Your task to perform on an android device: toggle show notifications on the lock screen Image 0: 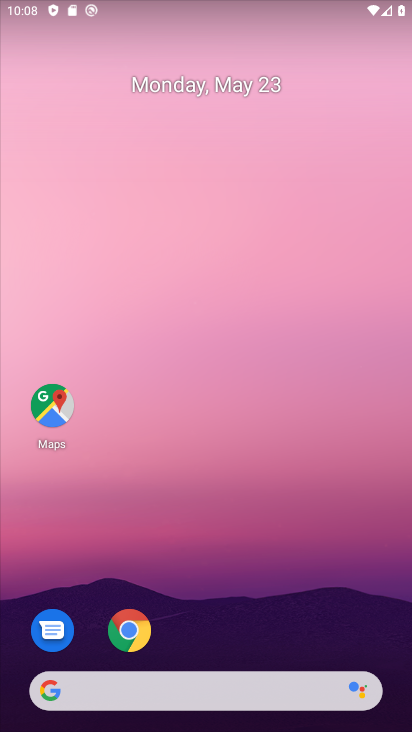
Step 0: drag from (307, 655) to (201, 16)
Your task to perform on an android device: toggle show notifications on the lock screen Image 1: 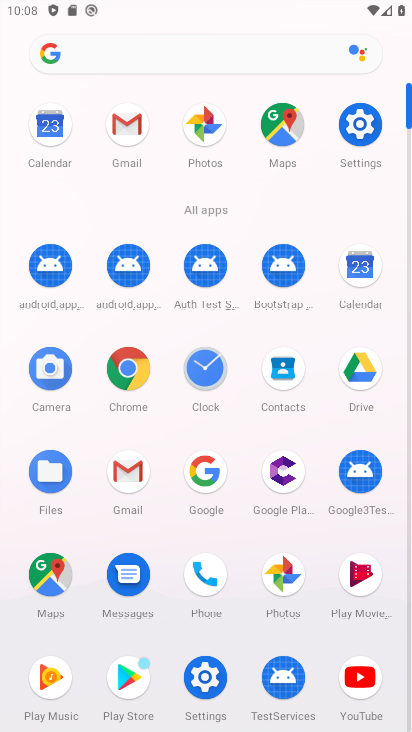
Step 1: click (351, 126)
Your task to perform on an android device: toggle show notifications on the lock screen Image 2: 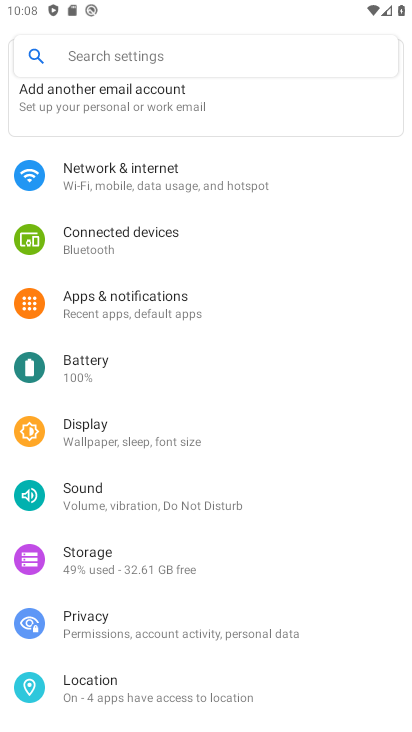
Step 2: click (90, 313)
Your task to perform on an android device: toggle show notifications on the lock screen Image 3: 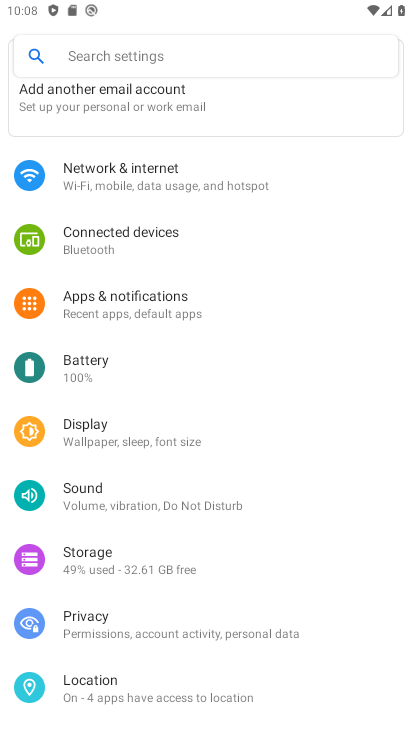
Step 3: click (114, 298)
Your task to perform on an android device: toggle show notifications on the lock screen Image 4: 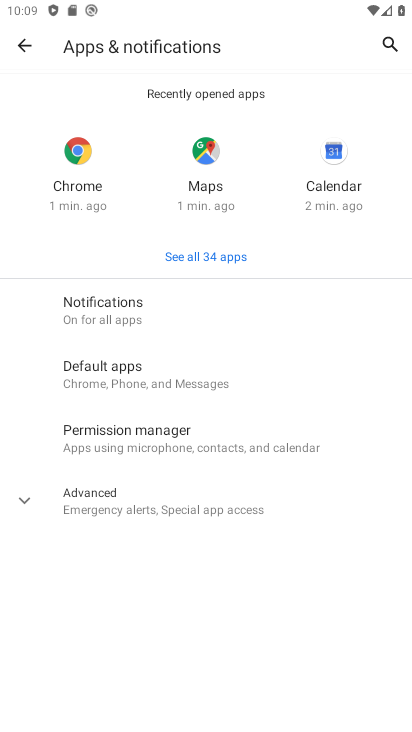
Step 4: click (93, 323)
Your task to perform on an android device: toggle show notifications on the lock screen Image 5: 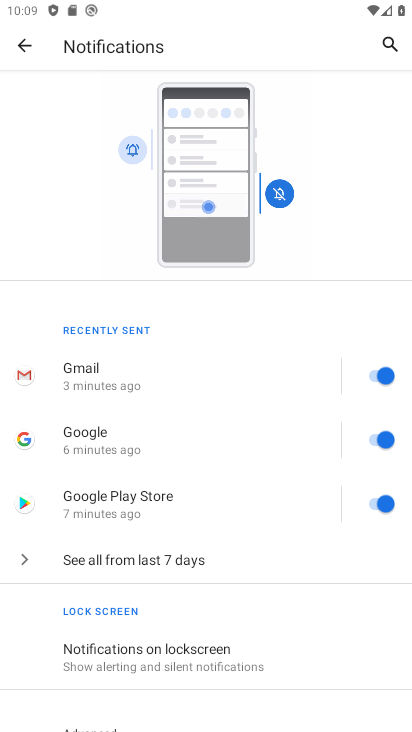
Step 5: click (140, 651)
Your task to perform on an android device: toggle show notifications on the lock screen Image 6: 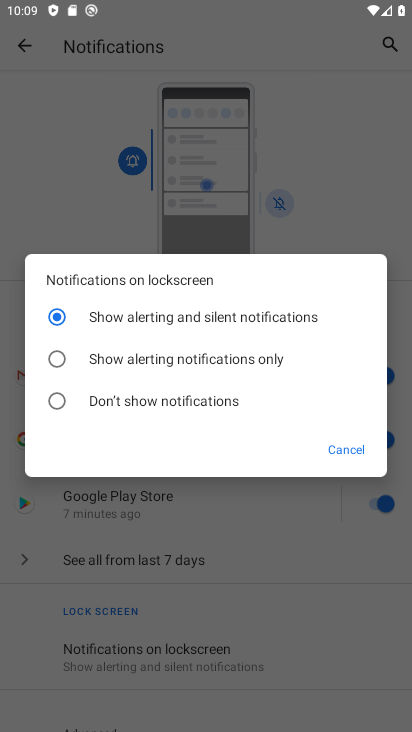
Step 6: click (61, 409)
Your task to perform on an android device: toggle show notifications on the lock screen Image 7: 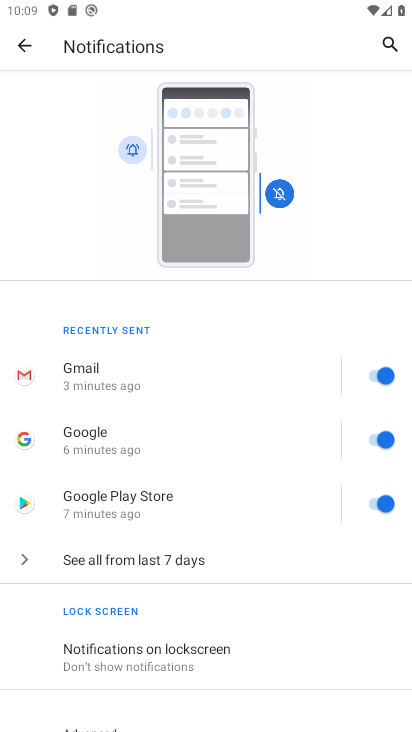
Step 7: task complete